Your task to perform on an android device: search for starred emails in the gmail app Image 0: 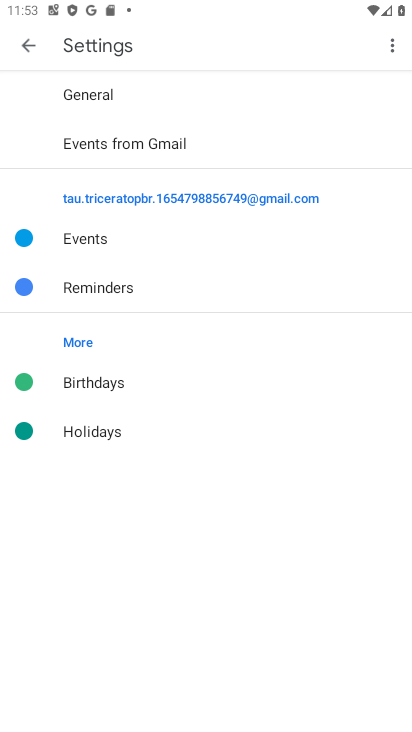
Step 0: press home button
Your task to perform on an android device: search for starred emails in the gmail app Image 1: 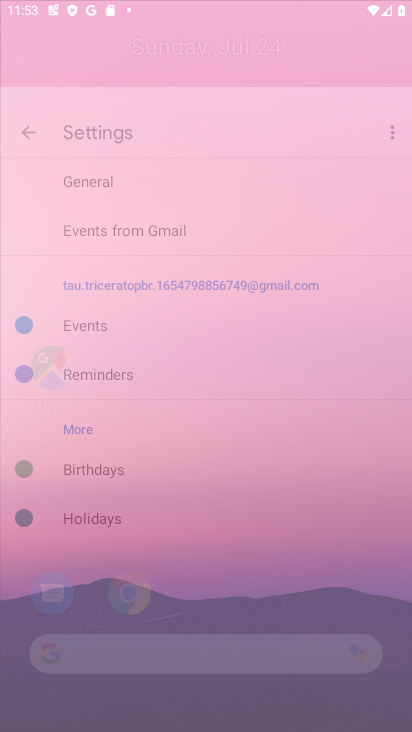
Step 1: drag from (283, 690) to (329, 277)
Your task to perform on an android device: search for starred emails in the gmail app Image 2: 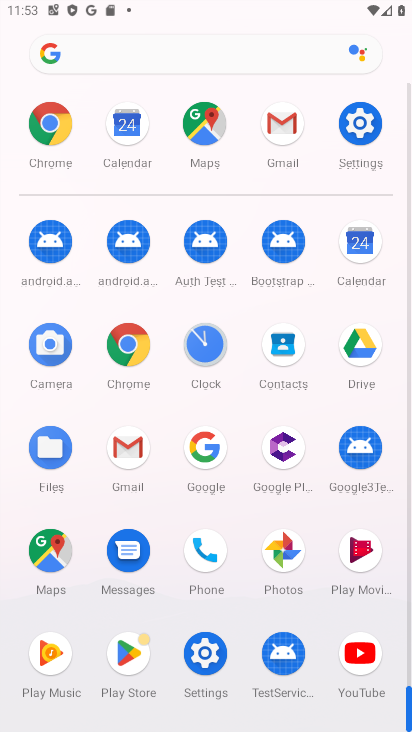
Step 2: click (265, 125)
Your task to perform on an android device: search for starred emails in the gmail app Image 3: 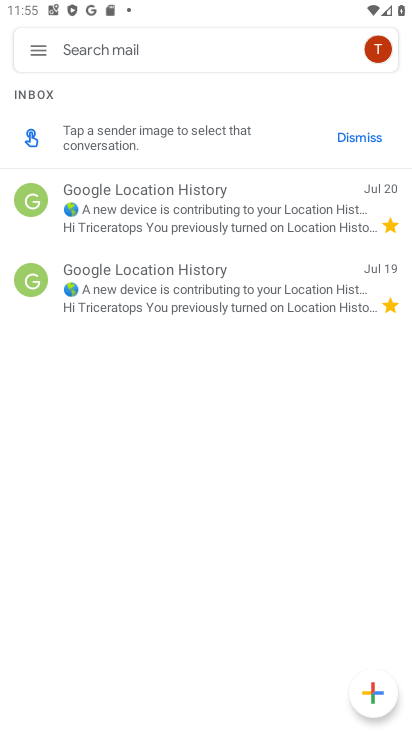
Step 3: click (31, 61)
Your task to perform on an android device: search for starred emails in the gmail app Image 4: 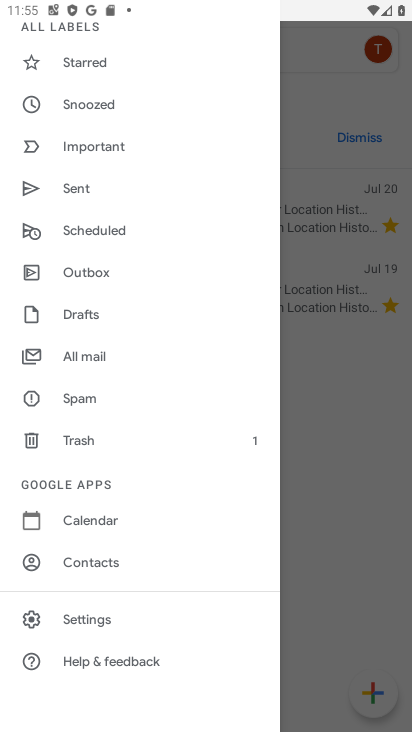
Step 4: click (87, 50)
Your task to perform on an android device: search for starred emails in the gmail app Image 5: 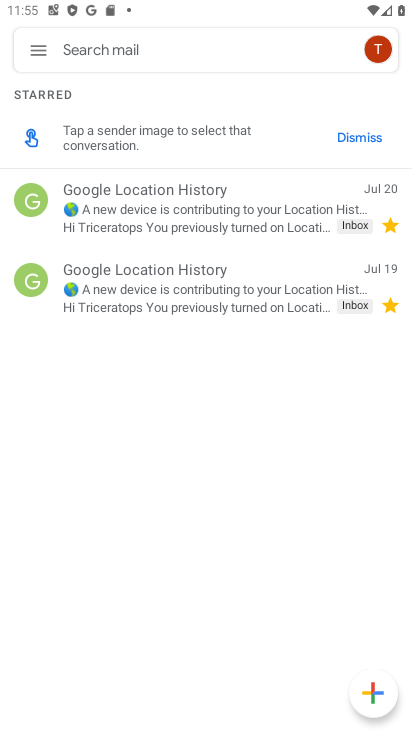
Step 5: task complete